Your task to perform on an android device: turn off airplane mode Image 0: 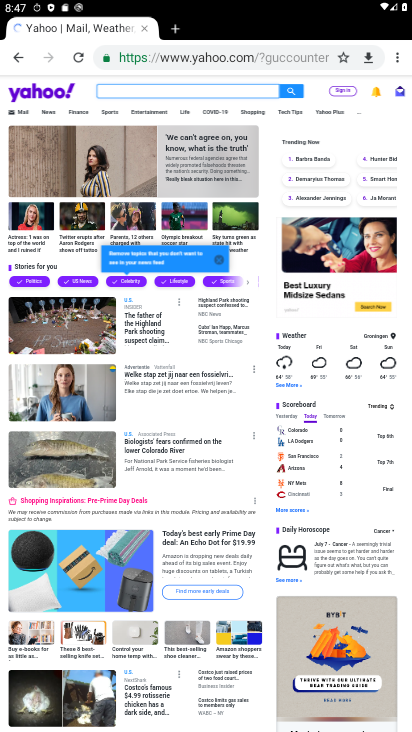
Step 0: drag from (360, 537) to (368, 294)
Your task to perform on an android device: turn off airplane mode Image 1: 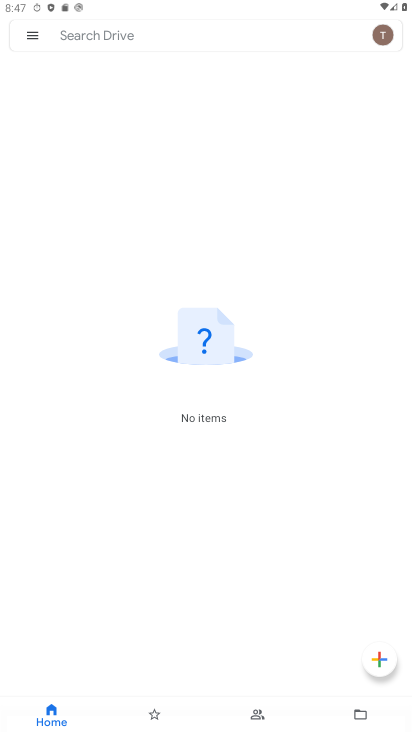
Step 1: press home button
Your task to perform on an android device: turn off airplane mode Image 2: 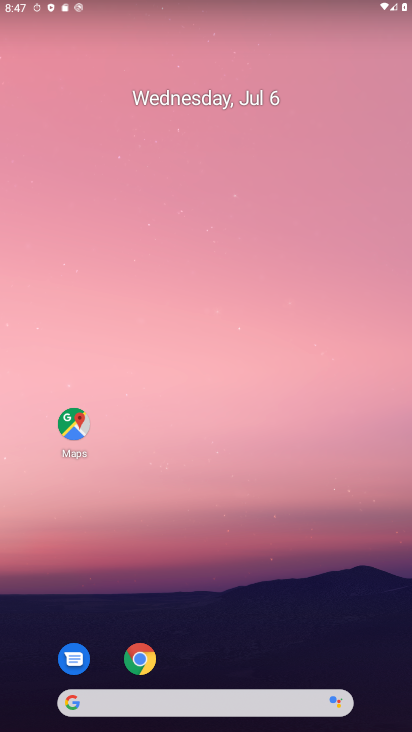
Step 2: drag from (334, 645) to (376, 251)
Your task to perform on an android device: turn off airplane mode Image 3: 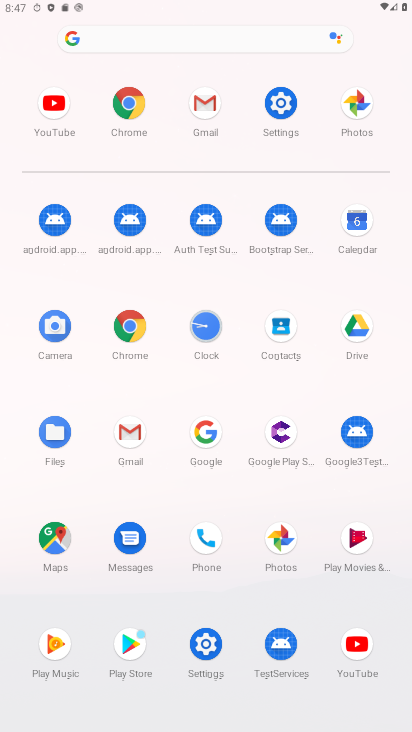
Step 3: click (207, 642)
Your task to perform on an android device: turn off airplane mode Image 4: 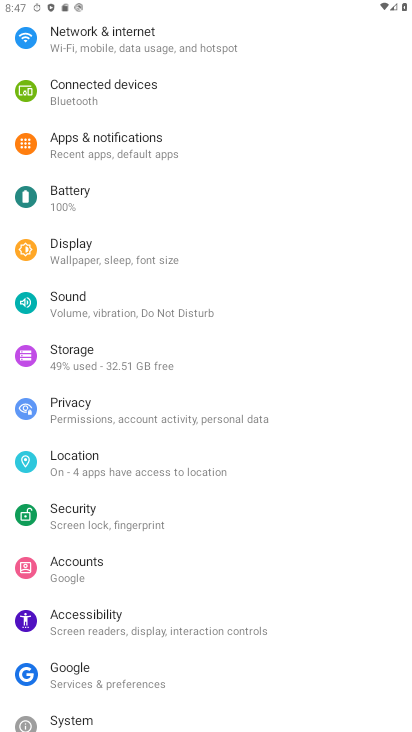
Step 4: drag from (306, 203) to (304, 315)
Your task to perform on an android device: turn off airplane mode Image 5: 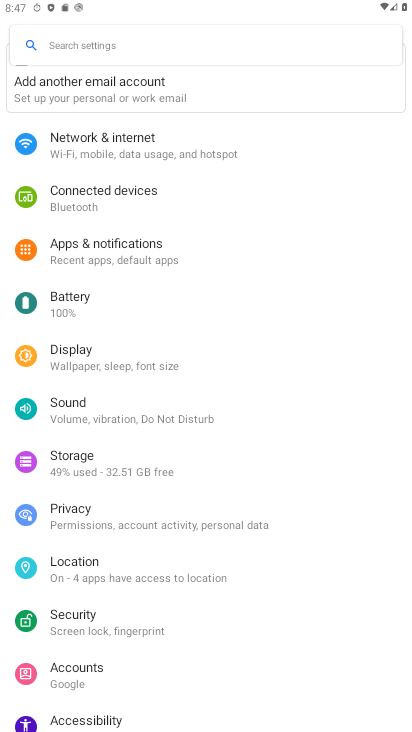
Step 5: drag from (324, 499) to (337, 360)
Your task to perform on an android device: turn off airplane mode Image 6: 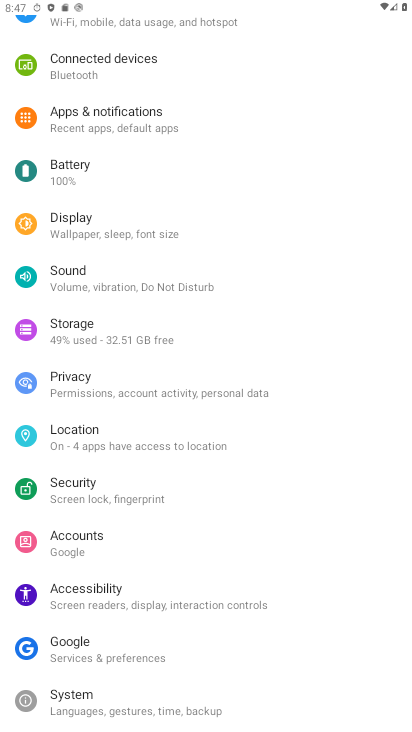
Step 6: drag from (349, 492) to (356, 335)
Your task to perform on an android device: turn off airplane mode Image 7: 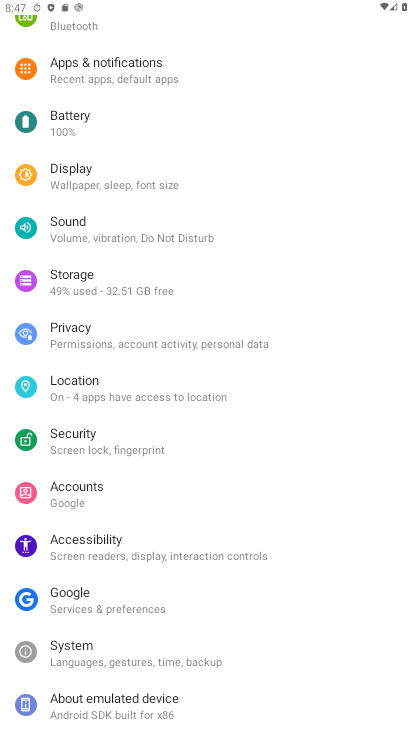
Step 7: drag from (358, 181) to (357, 507)
Your task to perform on an android device: turn off airplane mode Image 8: 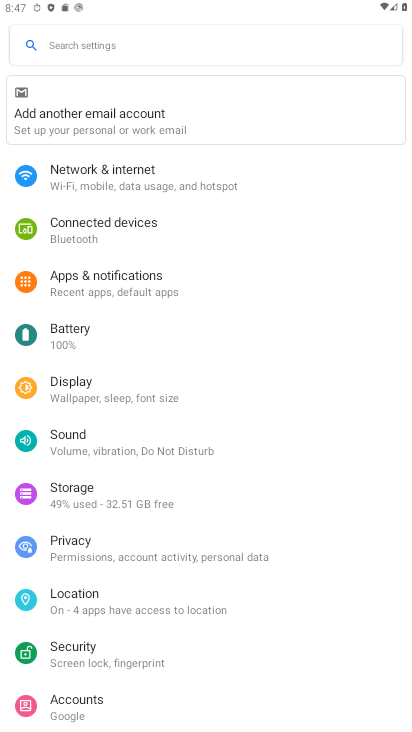
Step 8: click (228, 183)
Your task to perform on an android device: turn off airplane mode Image 9: 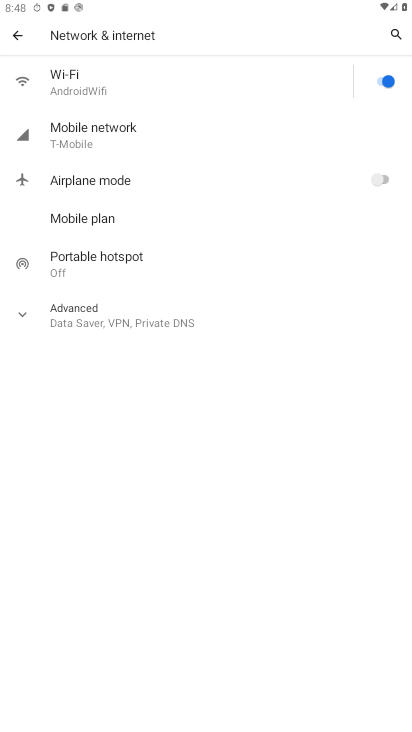
Step 9: task complete